Your task to perform on an android device: turn on improve location accuracy Image 0: 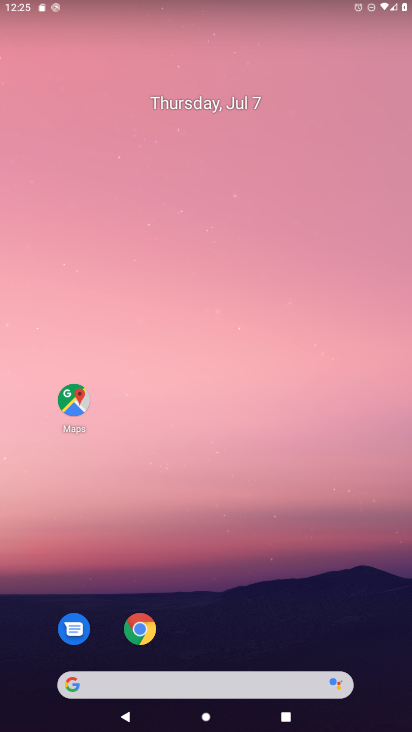
Step 0: drag from (219, 624) to (222, 209)
Your task to perform on an android device: turn on improve location accuracy Image 1: 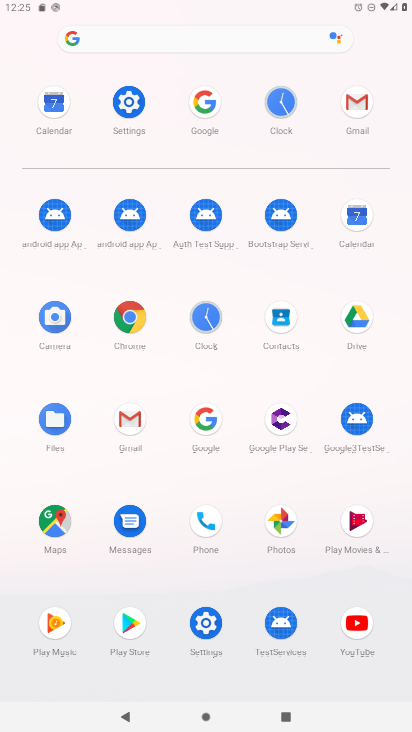
Step 1: click (135, 110)
Your task to perform on an android device: turn on improve location accuracy Image 2: 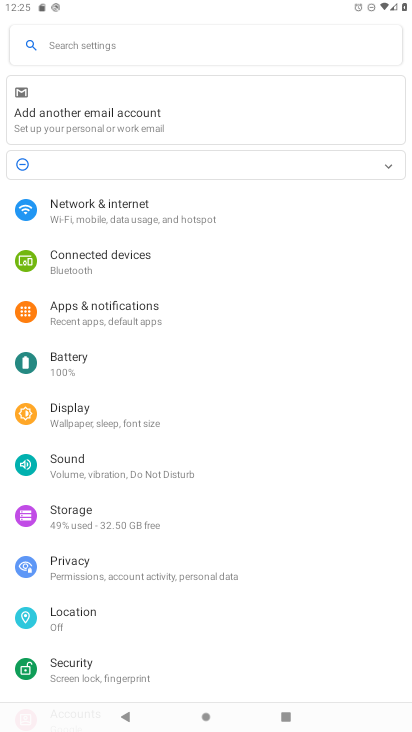
Step 2: click (127, 607)
Your task to perform on an android device: turn on improve location accuracy Image 3: 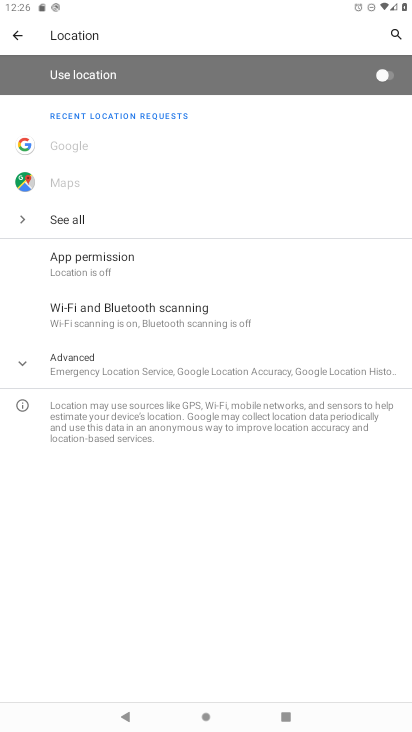
Step 3: click (151, 369)
Your task to perform on an android device: turn on improve location accuracy Image 4: 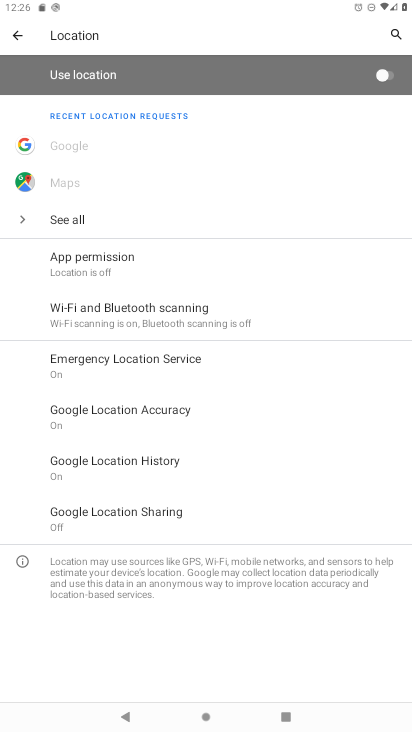
Step 4: click (147, 416)
Your task to perform on an android device: turn on improve location accuracy Image 5: 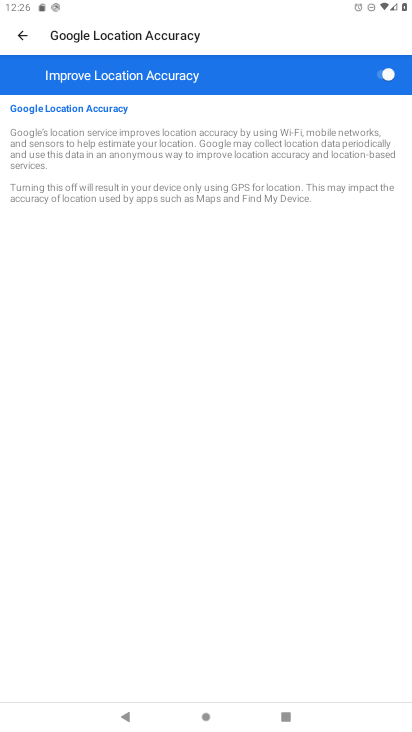
Step 5: task complete